Your task to perform on an android device: allow cookies in the chrome app Image 0: 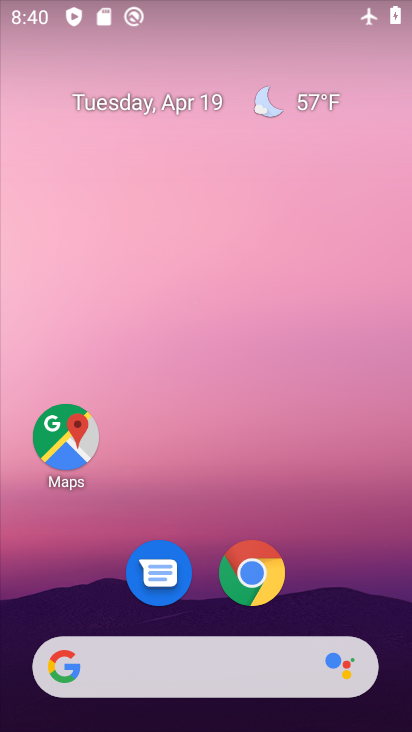
Step 0: click (260, 577)
Your task to perform on an android device: allow cookies in the chrome app Image 1: 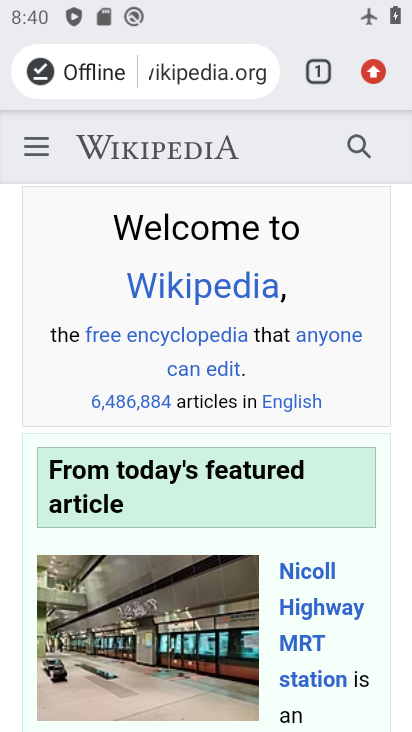
Step 1: click (370, 68)
Your task to perform on an android device: allow cookies in the chrome app Image 2: 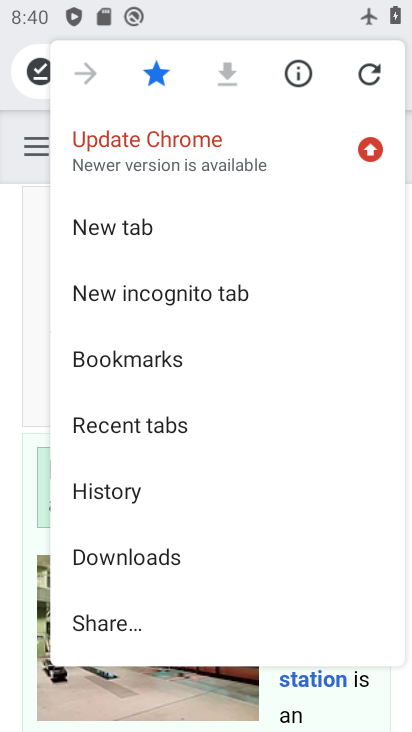
Step 2: drag from (189, 557) to (199, 209)
Your task to perform on an android device: allow cookies in the chrome app Image 3: 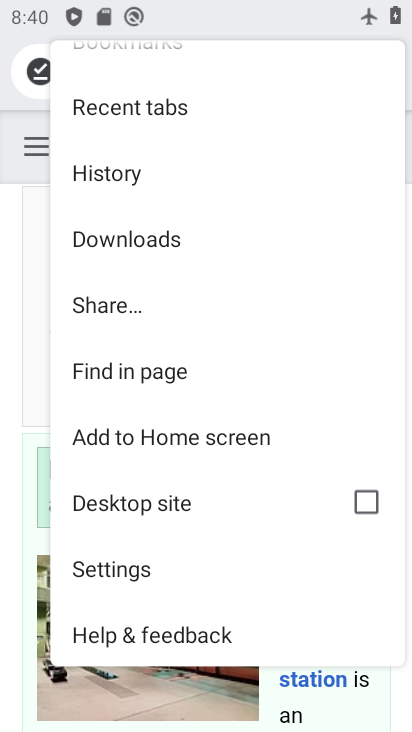
Step 3: click (120, 568)
Your task to perform on an android device: allow cookies in the chrome app Image 4: 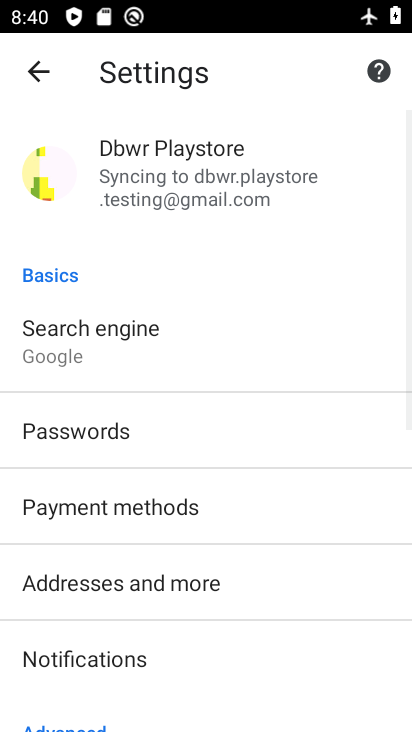
Step 4: drag from (286, 674) to (278, 240)
Your task to perform on an android device: allow cookies in the chrome app Image 5: 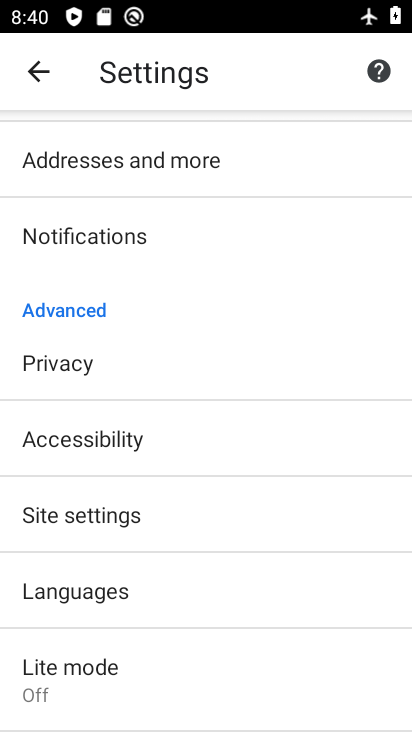
Step 5: click (107, 514)
Your task to perform on an android device: allow cookies in the chrome app Image 6: 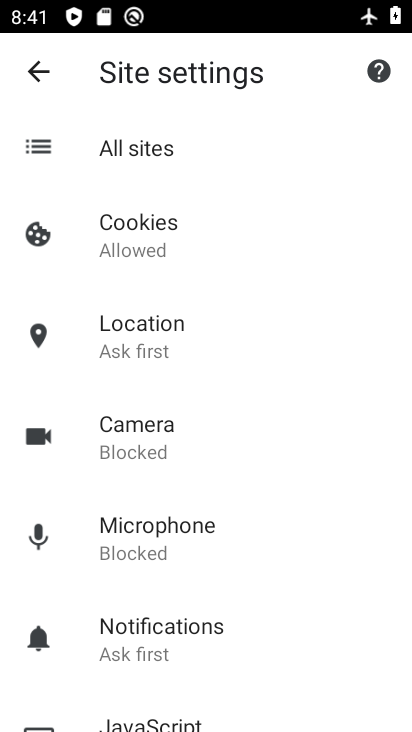
Step 6: task complete